Your task to perform on an android device: Go to sound settings Image 0: 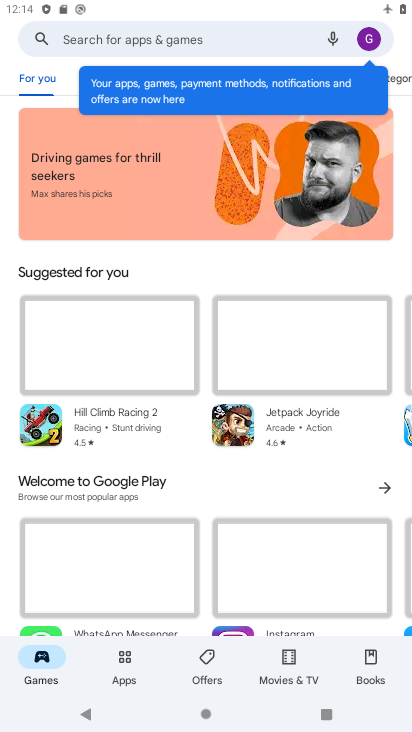
Step 0: press home button
Your task to perform on an android device: Go to sound settings Image 1: 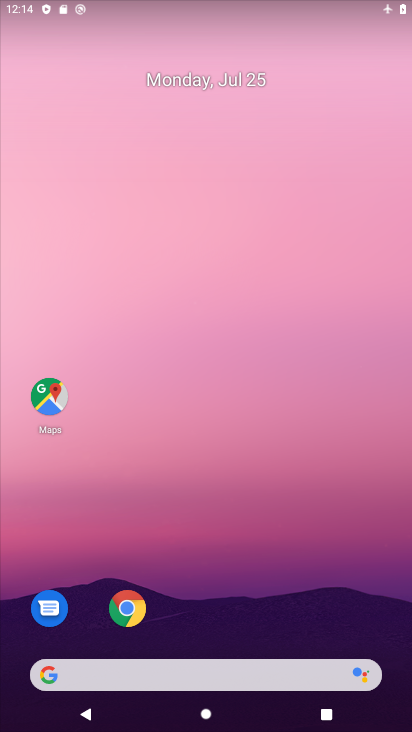
Step 1: drag from (192, 616) to (189, 67)
Your task to perform on an android device: Go to sound settings Image 2: 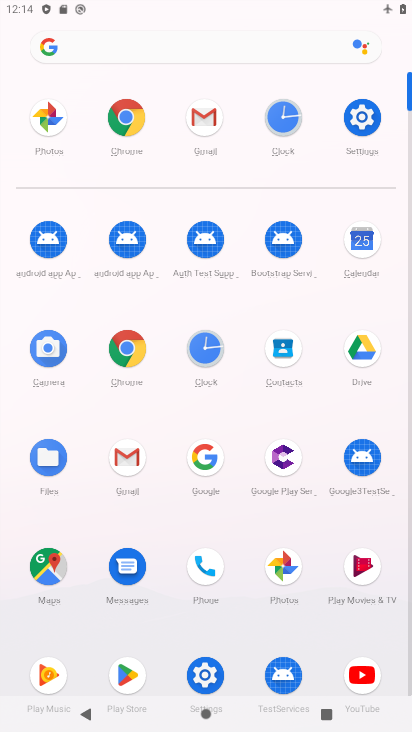
Step 2: click (368, 133)
Your task to perform on an android device: Go to sound settings Image 3: 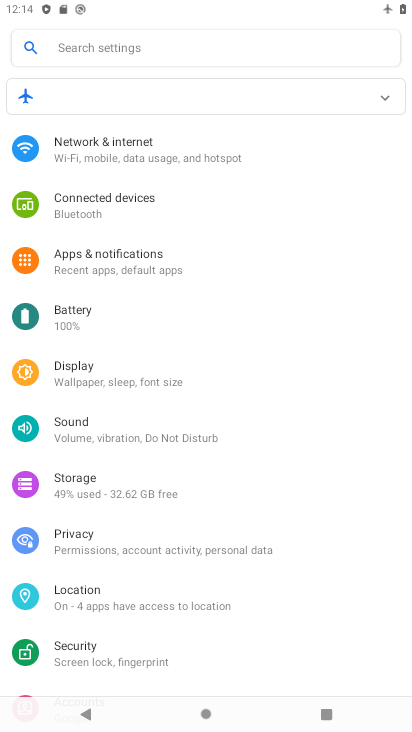
Step 3: click (104, 427)
Your task to perform on an android device: Go to sound settings Image 4: 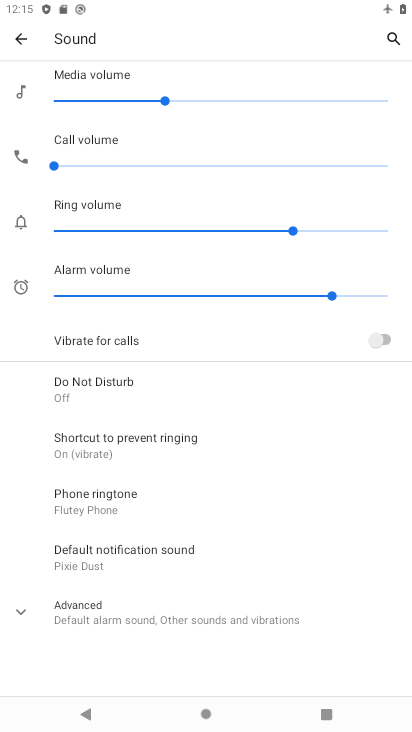
Step 4: task complete